Your task to perform on an android device: Go to calendar. Show me events next week Image 0: 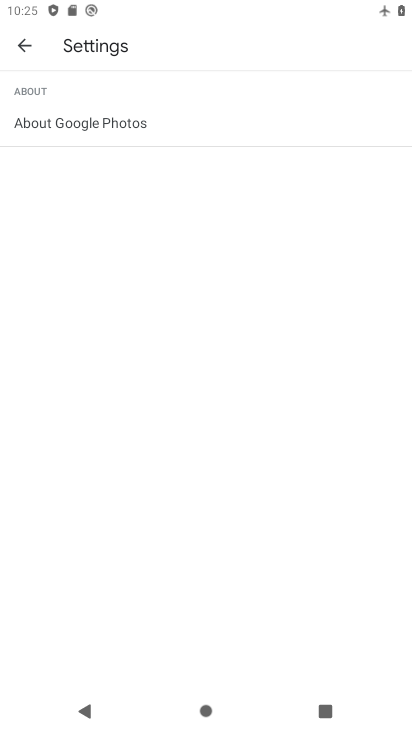
Step 0: press home button
Your task to perform on an android device: Go to calendar. Show me events next week Image 1: 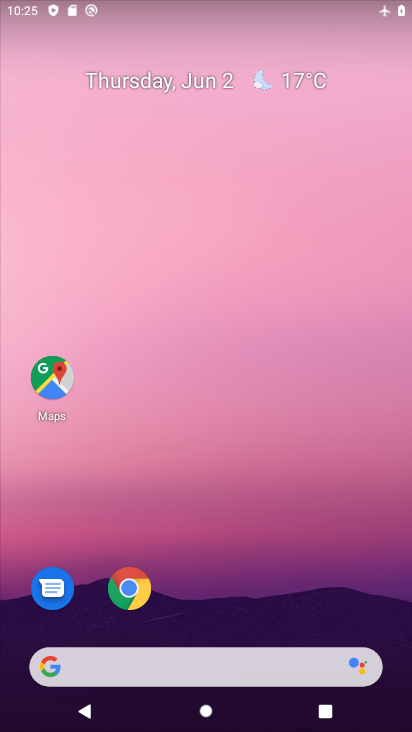
Step 1: drag from (197, 579) to (245, 108)
Your task to perform on an android device: Go to calendar. Show me events next week Image 2: 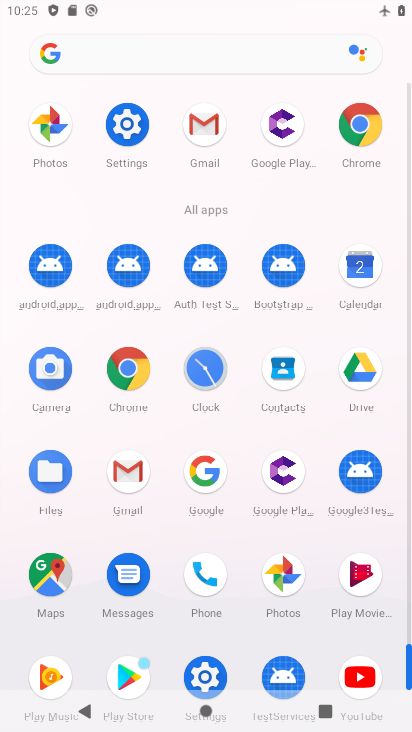
Step 2: click (357, 288)
Your task to perform on an android device: Go to calendar. Show me events next week Image 3: 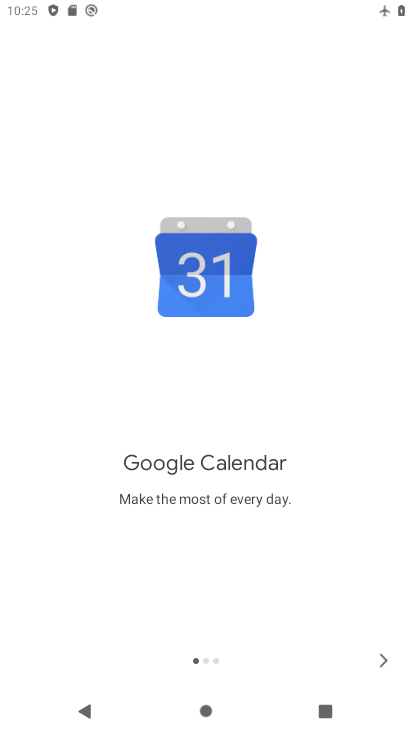
Step 3: click (378, 661)
Your task to perform on an android device: Go to calendar. Show me events next week Image 4: 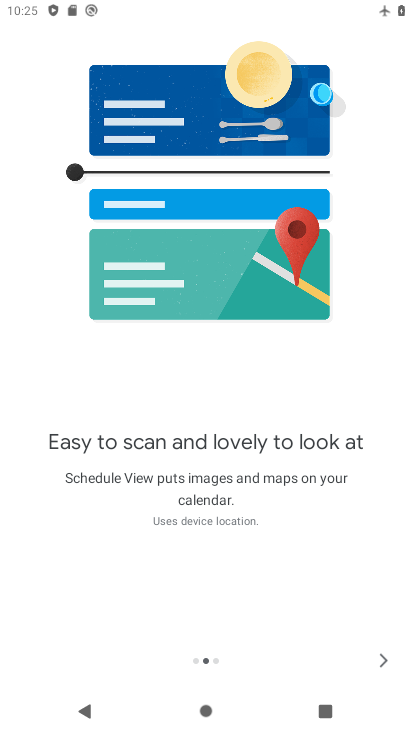
Step 4: click (381, 664)
Your task to perform on an android device: Go to calendar. Show me events next week Image 5: 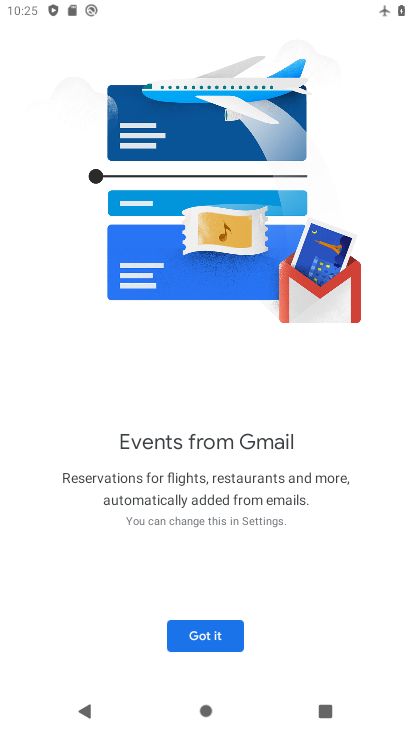
Step 5: click (235, 634)
Your task to perform on an android device: Go to calendar. Show me events next week Image 6: 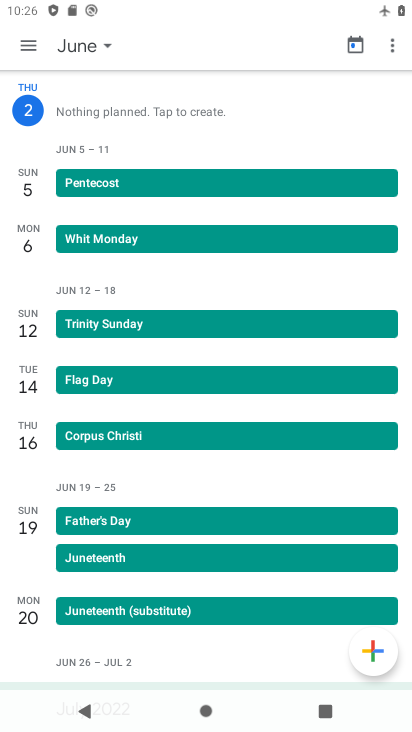
Step 6: click (35, 40)
Your task to perform on an android device: Go to calendar. Show me events next week Image 7: 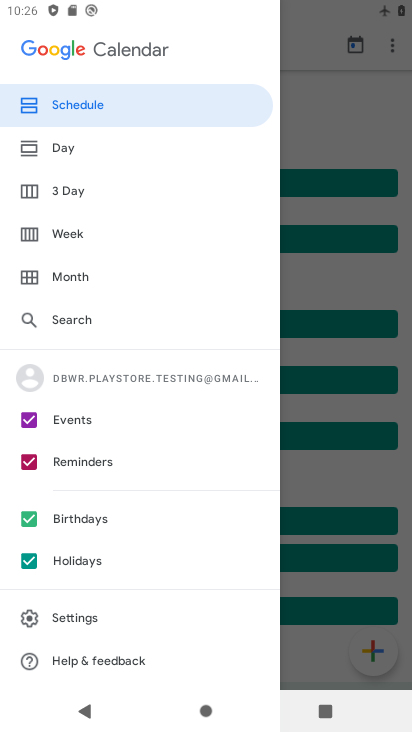
Step 7: click (85, 523)
Your task to perform on an android device: Go to calendar. Show me events next week Image 8: 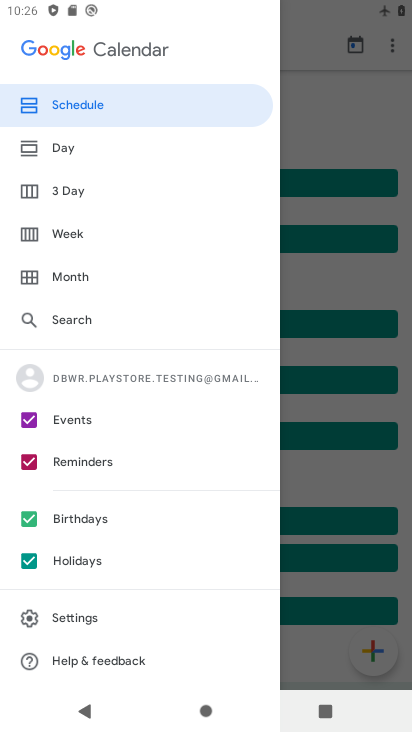
Step 8: click (88, 567)
Your task to perform on an android device: Go to calendar. Show me events next week Image 9: 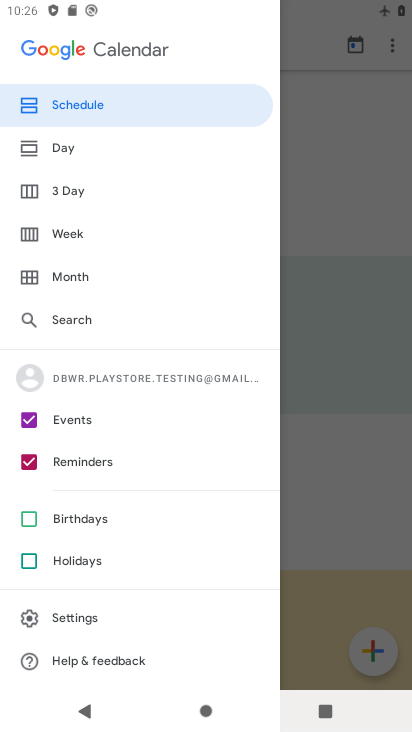
Step 9: click (88, 451)
Your task to perform on an android device: Go to calendar. Show me events next week Image 10: 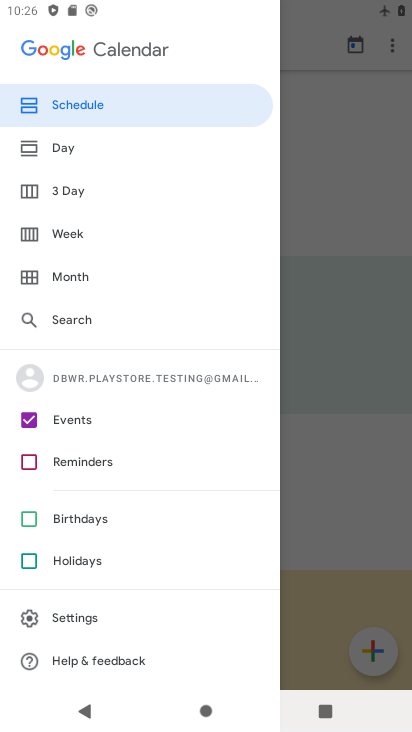
Step 10: click (82, 228)
Your task to perform on an android device: Go to calendar. Show me events next week Image 11: 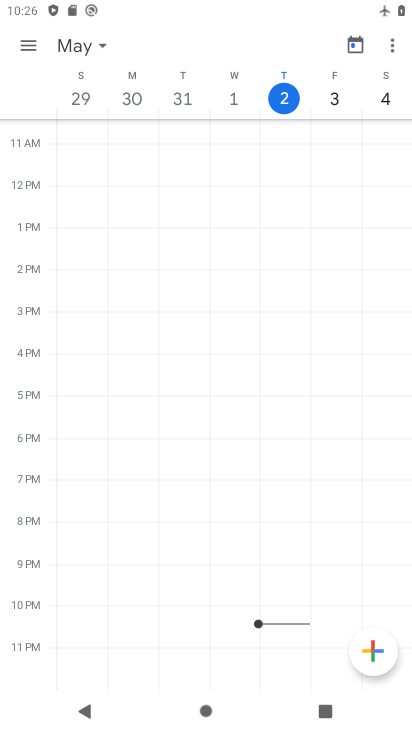
Step 11: task complete